Your task to perform on an android device: install app "LiveIn - Share Your Moment" Image 0: 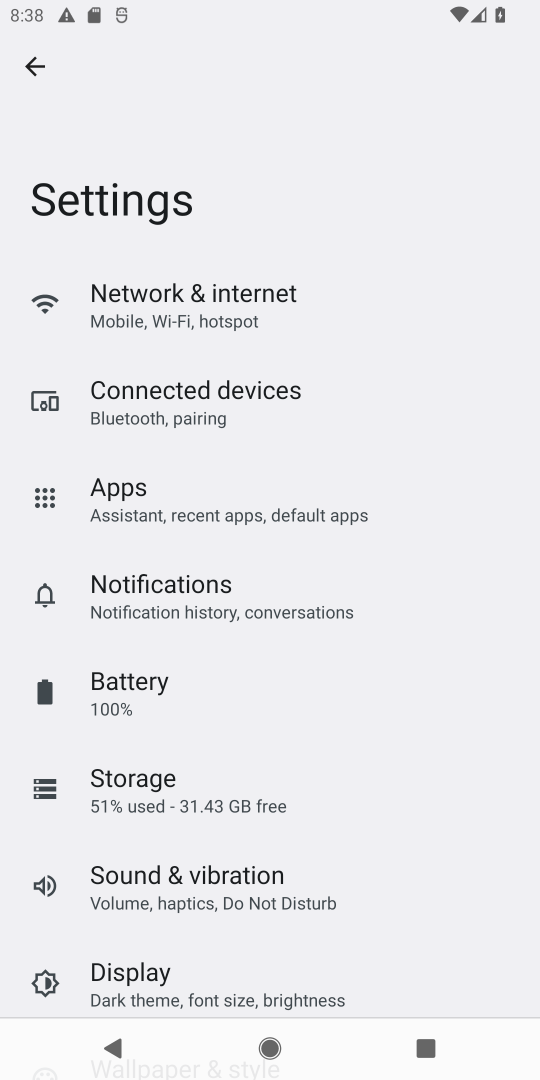
Step 0: press home button
Your task to perform on an android device: install app "LiveIn - Share Your Moment" Image 1: 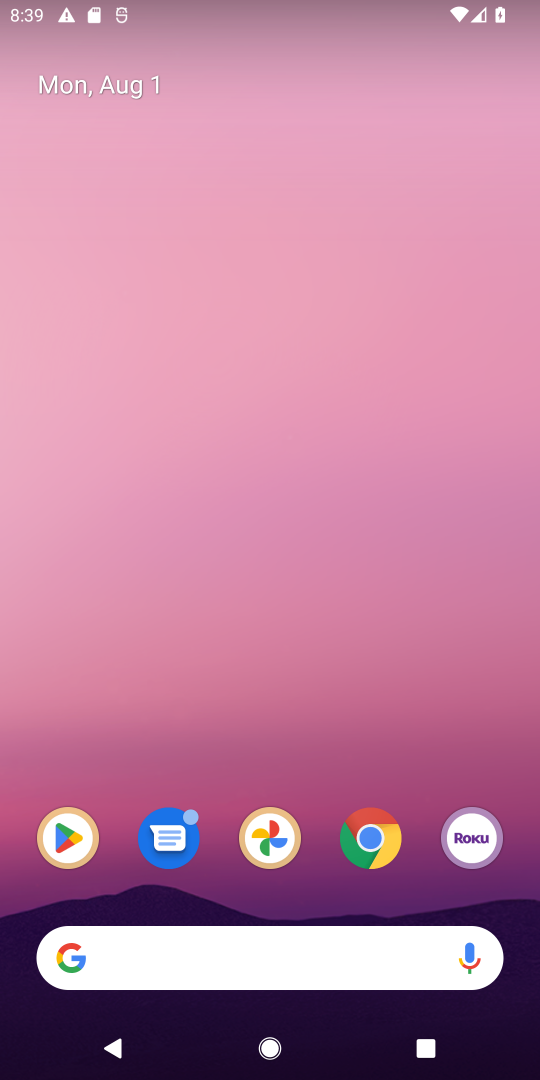
Step 1: drag from (249, 1018) to (273, 159)
Your task to perform on an android device: install app "LiveIn - Share Your Moment" Image 2: 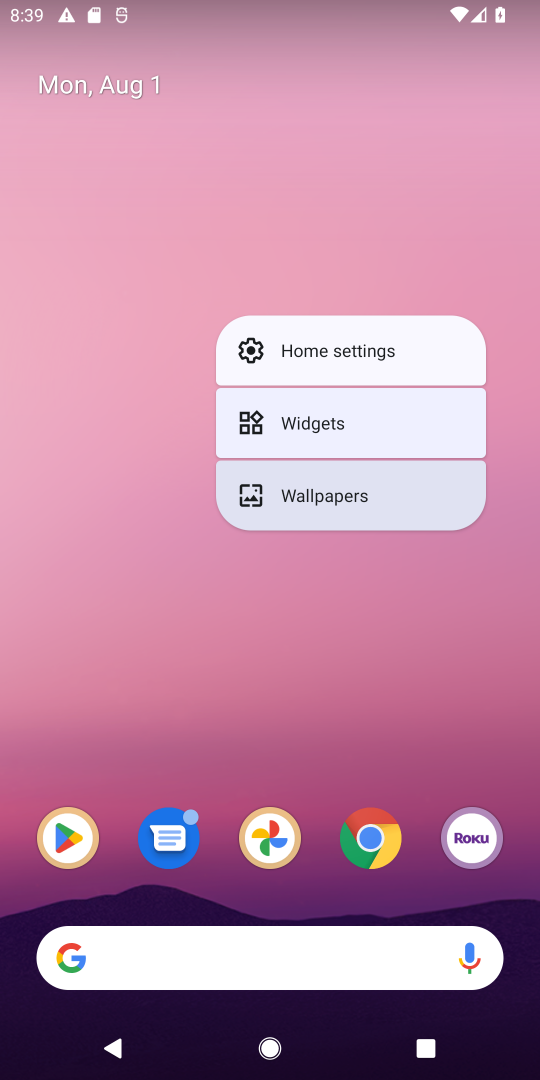
Step 2: click (112, 487)
Your task to perform on an android device: install app "LiveIn - Share Your Moment" Image 3: 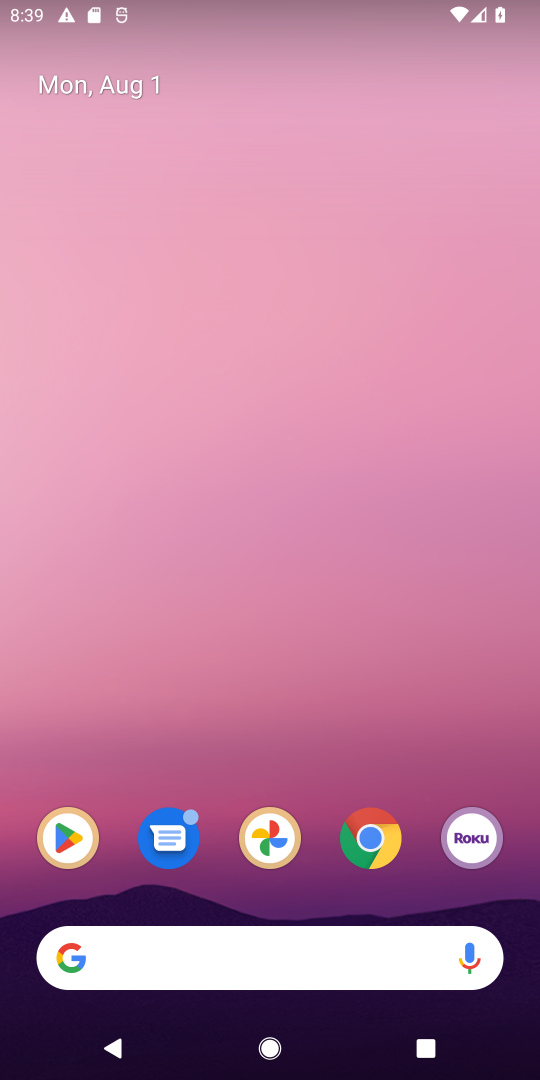
Step 3: drag from (298, 929) to (405, 35)
Your task to perform on an android device: install app "LiveIn - Share Your Moment" Image 4: 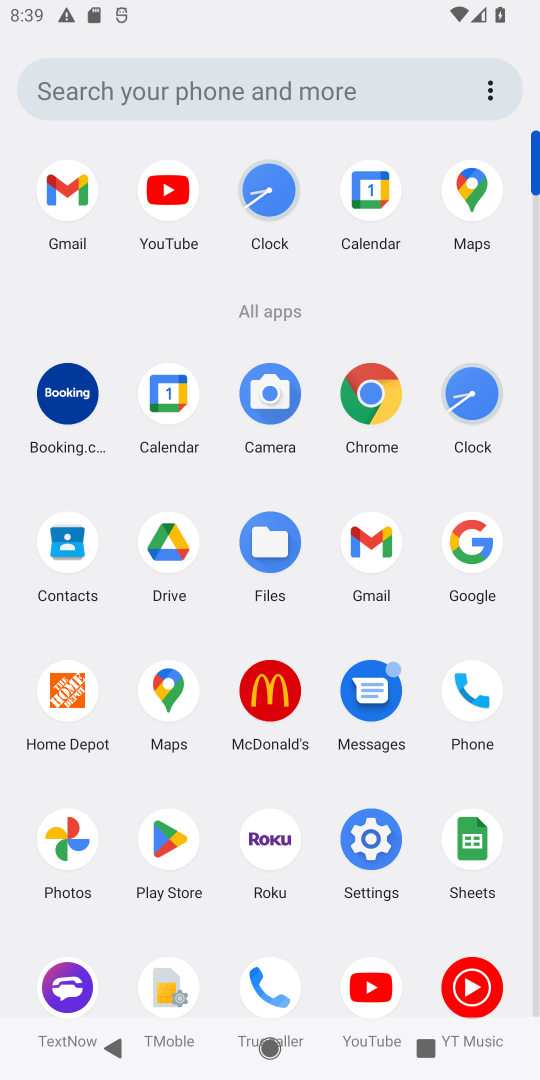
Step 4: click (177, 831)
Your task to perform on an android device: install app "LiveIn - Share Your Moment" Image 5: 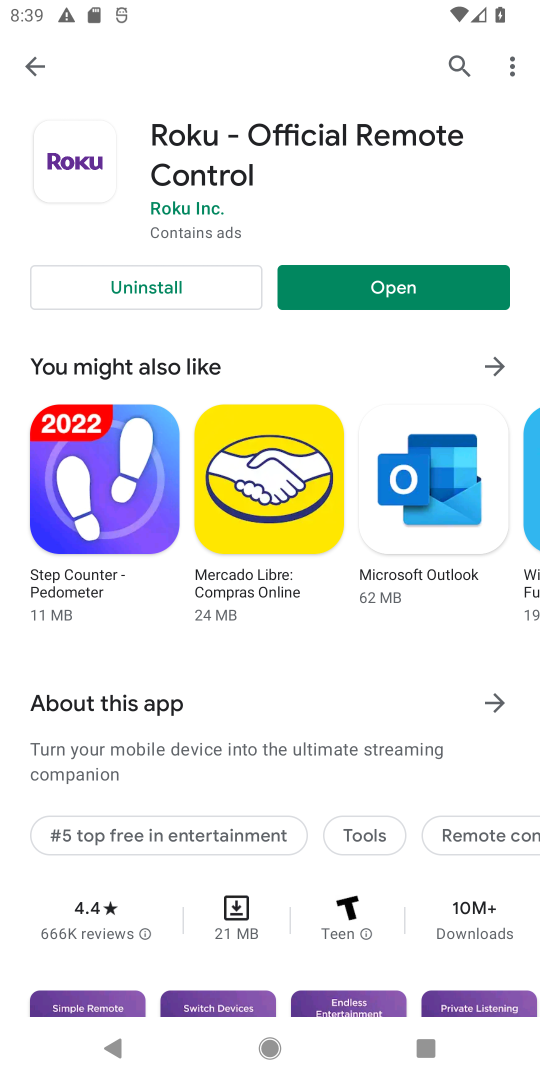
Step 5: click (454, 54)
Your task to perform on an android device: install app "LiveIn - Share Your Moment" Image 6: 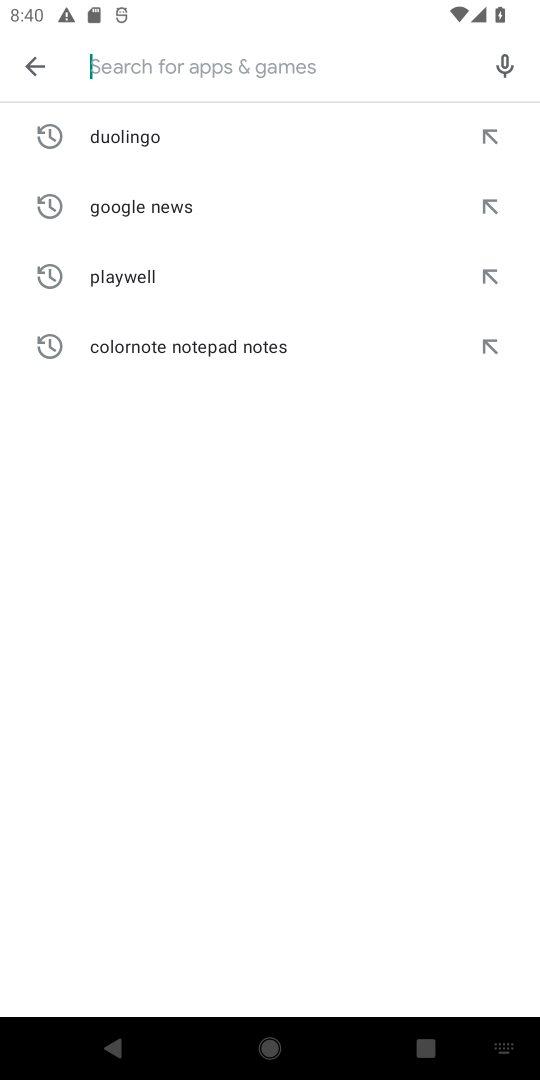
Step 6: type "livein - share your moment"
Your task to perform on an android device: install app "LiveIn - Share Your Moment" Image 7: 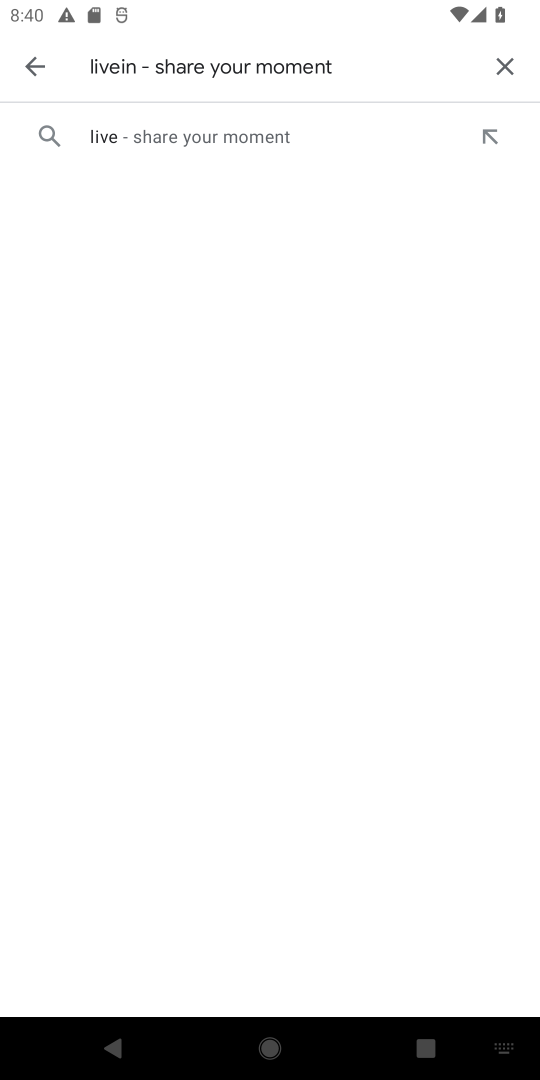
Step 7: click (303, 146)
Your task to perform on an android device: install app "LiveIn - Share Your Moment" Image 8: 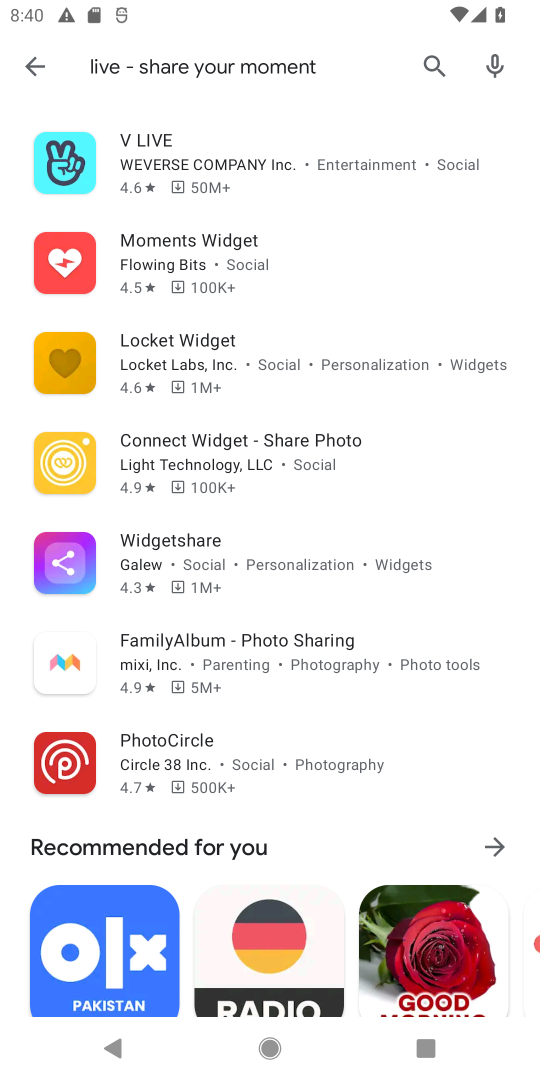
Step 8: task complete